Your task to perform on an android device: set the timer Image 0: 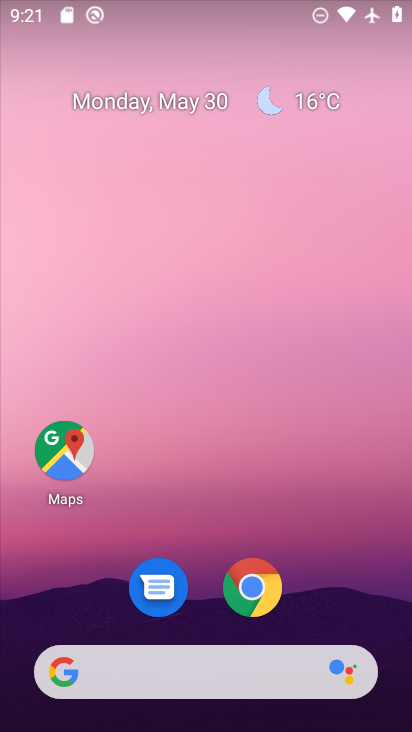
Step 0: drag from (196, 680) to (357, 15)
Your task to perform on an android device: set the timer Image 1: 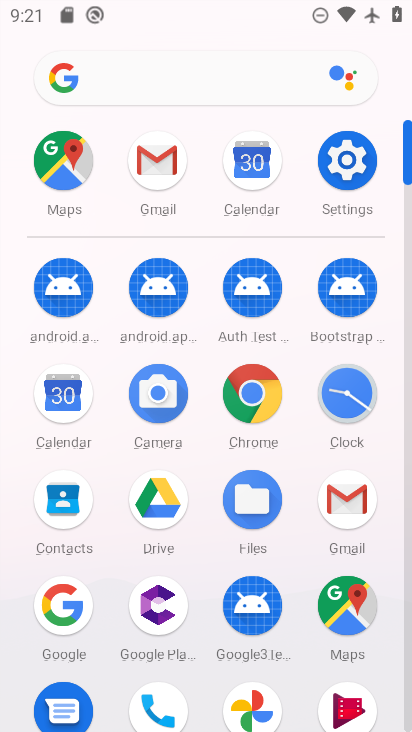
Step 1: click (337, 393)
Your task to perform on an android device: set the timer Image 2: 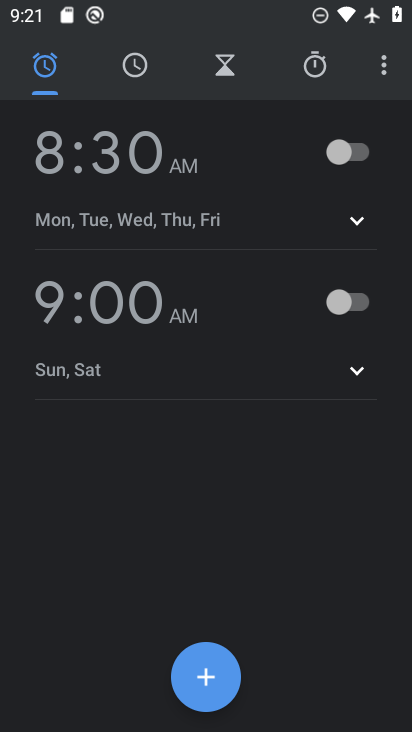
Step 2: click (223, 60)
Your task to perform on an android device: set the timer Image 3: 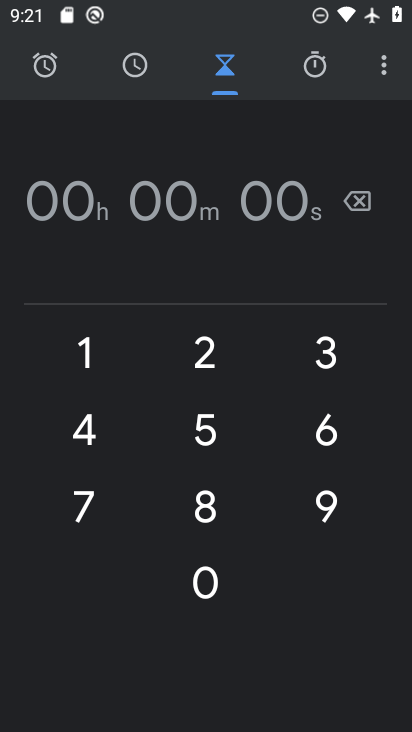
Step 3: click (94, 359)
Your task to perform on an android device: set the timer Image 4: 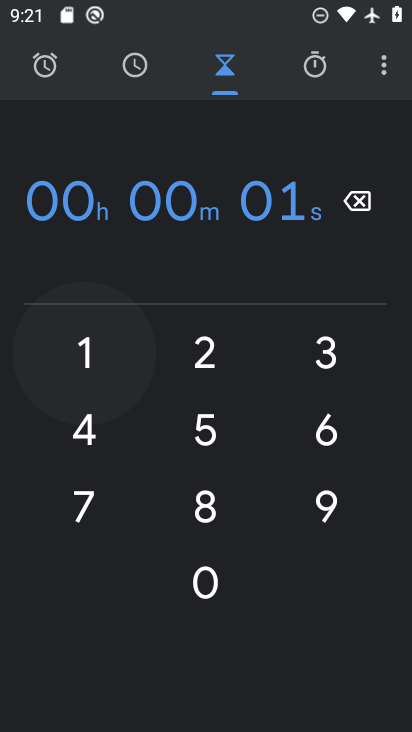
Step 4: click (225, 356)
Your task to perform on an android device: set the timer Image 5: 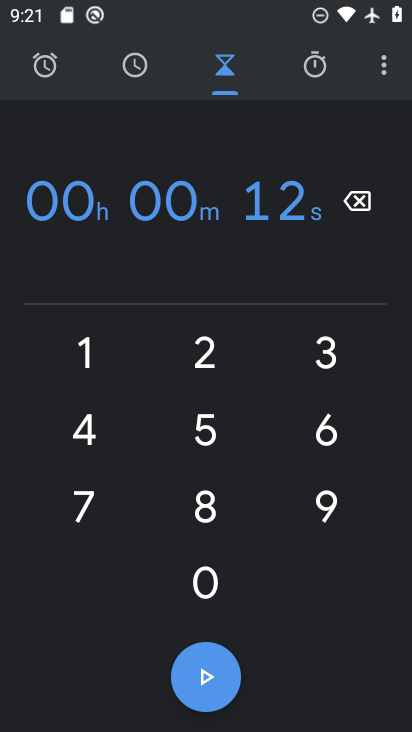
Step 5: click (201, 683)
Your task to perform on an android device: set the timer Image 6: 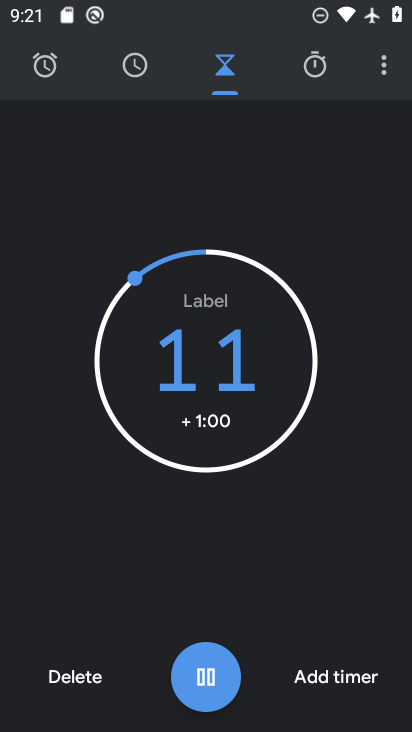
Step 6: click (201, 683)
Your task to perform on an android device: set the timer Image 7: 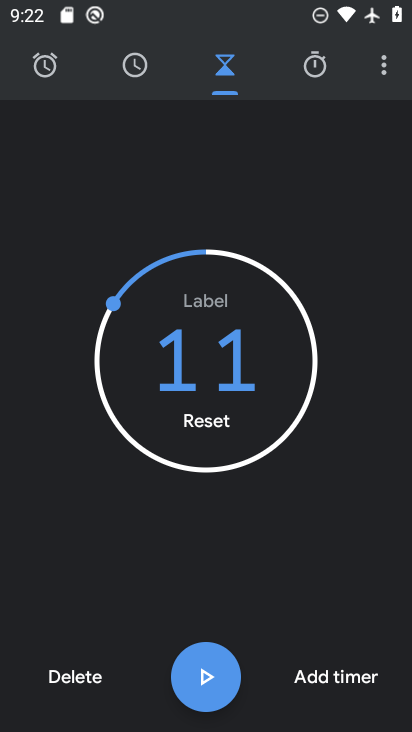
Step 7: task complete